Your task to perform on an android device: remove spam from my inbox in the gmail app Image 0: 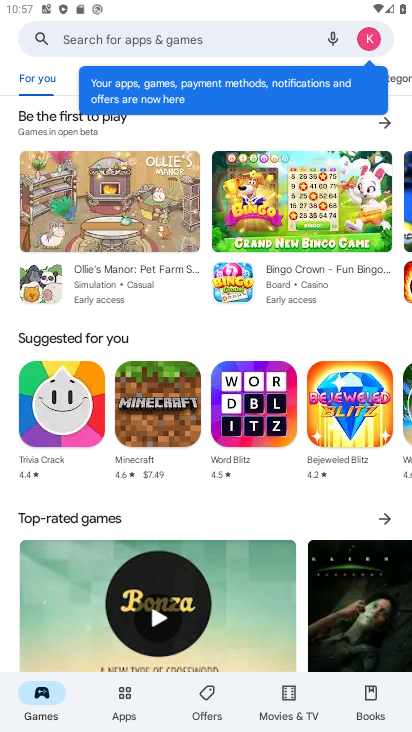
Step 0: press home button
Your task to perform on an android device: remove spam from my inbox in the gmail app Image 1: 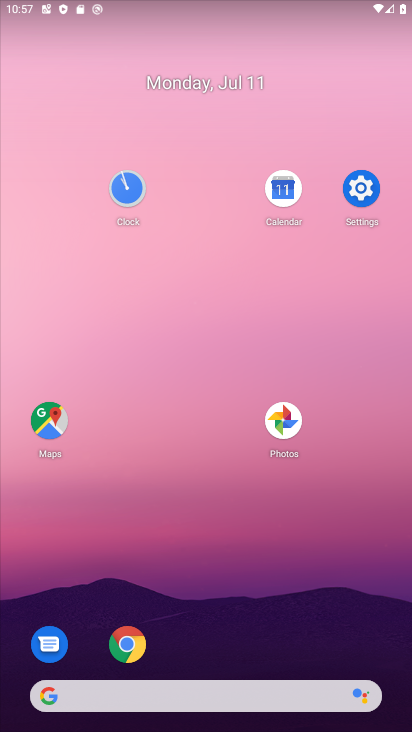
Step 1: drag from (270, 598) to (300, 230)
Your task to perform on an android device: remove spam from my inbox in the gmail app Image 2: 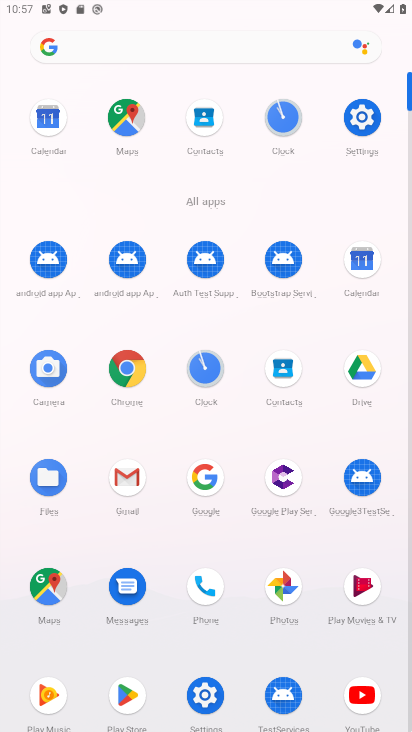
Step 2: drag from (127, 480) to (190, 434)
Your task to perform on an android device: remove spam from my inbox in the gmail app Image 3: 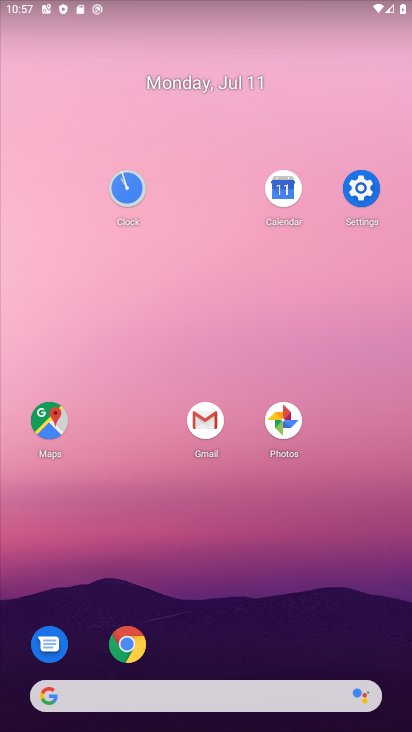
Step 3: click (202, 423)
Your task to perform on an android device: remove spam from my inbox in the gmail app Image 4: 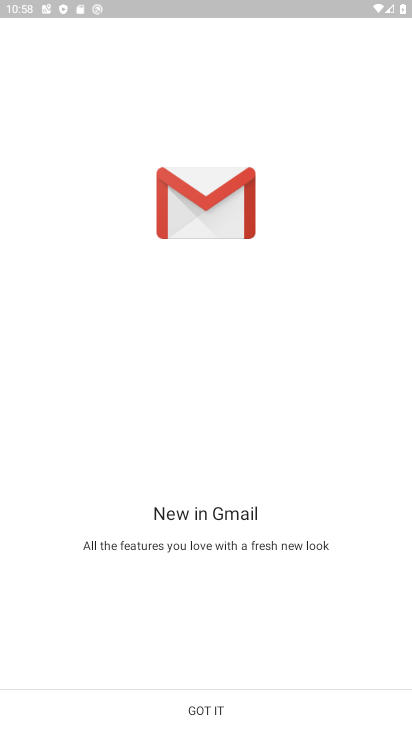
Step 4: click (257, 711)
Your task to perform on an android device: remove spam from my inbox in the gmail app Image 5: 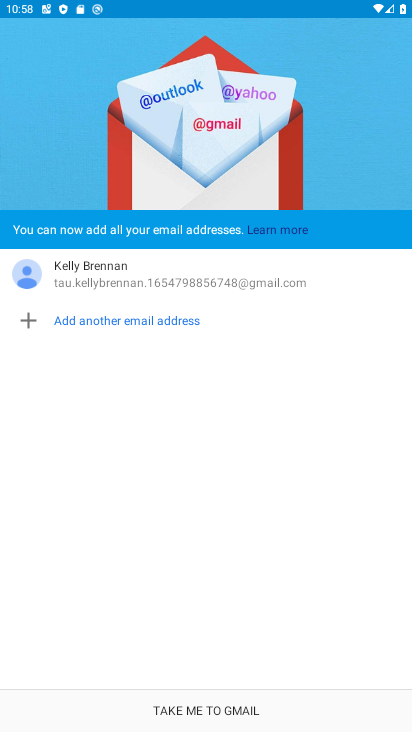
Step 5: click (236, 699)
Your task to perform on an android device: remove spam from my inbox in the gmail app Image 6: 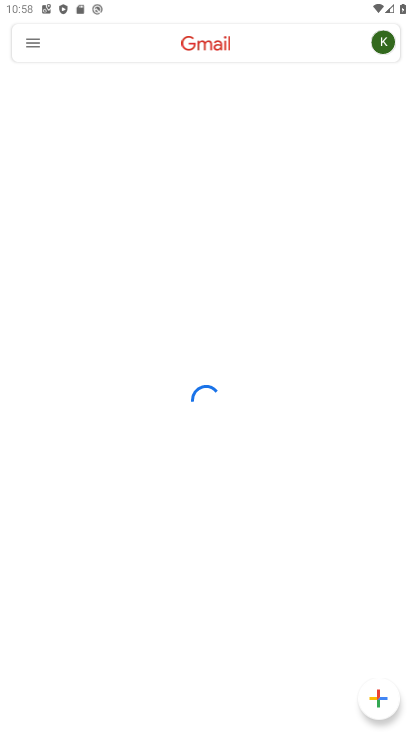
Step 6: click (32, 43)
Your task to perform on an android device: remove spam from my inbox in the gmail app Image 7: 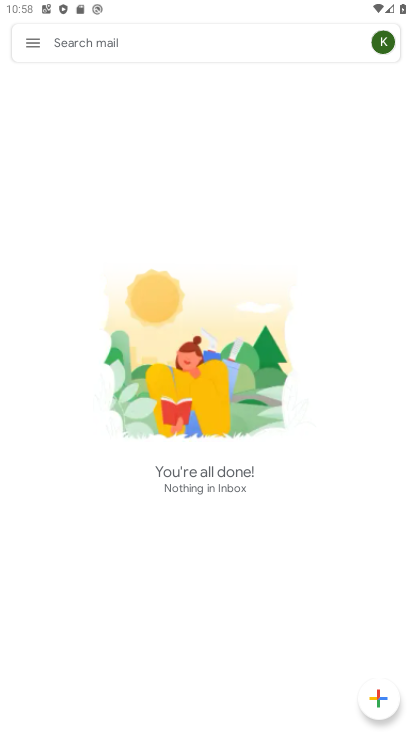
Step 7: click (25, 47)
Your task to perform on an android device: remove spam from my inbox in the gmail app Image 8: 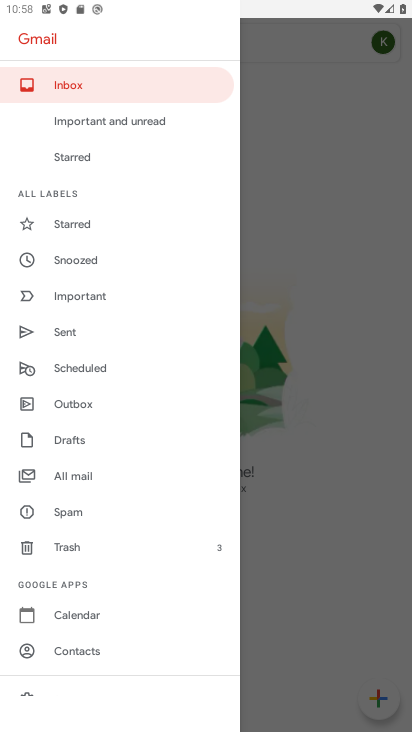
Step 8: click (94, 514)
Your task to perform on an android device: remove spam from my inbox in the gmail app Image 9: 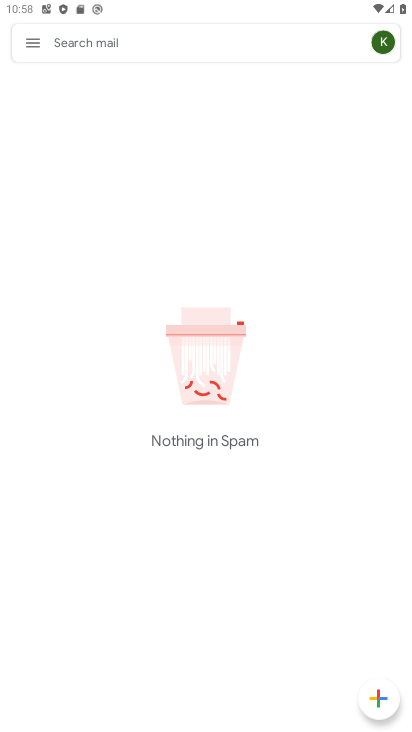
Step 9: task complete